Your task to perform on an android device: clear history in the chrome app Image 0: 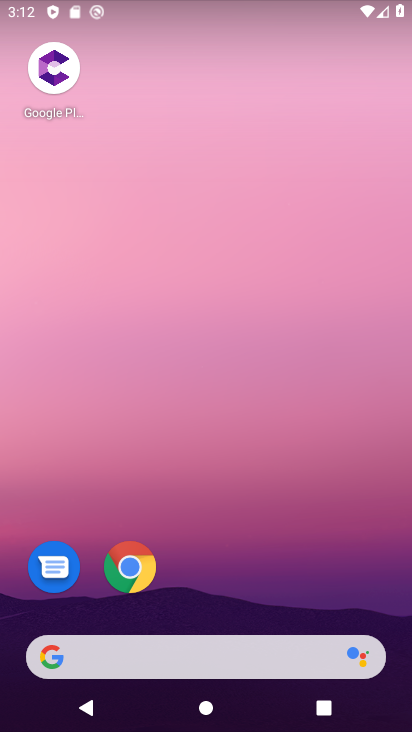
Step 0: drag from (345, 554) to (350, 189)
Your task to perform on an android device: clear history in the chrome app Image 1: 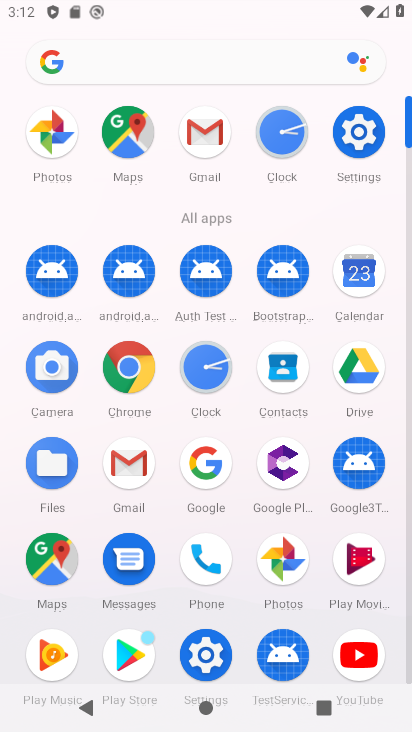
Step 1: click (122, 391)
Your task to perform on an android device: clear history in the chrome app Image 2: 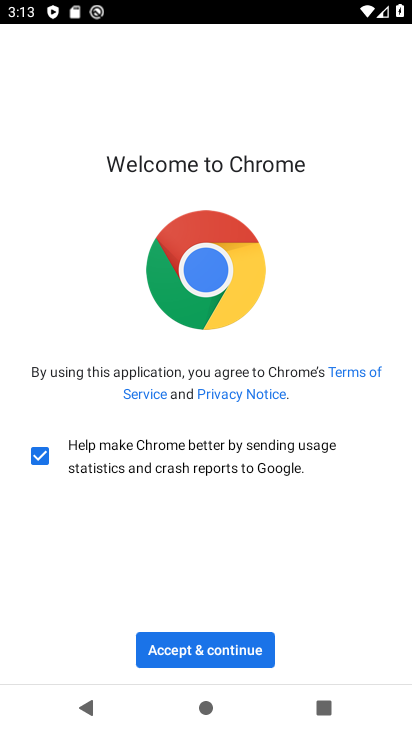
Step 2: click (227, 665)
Your task to perform on an android device: clear history in the chrome app Image 3: 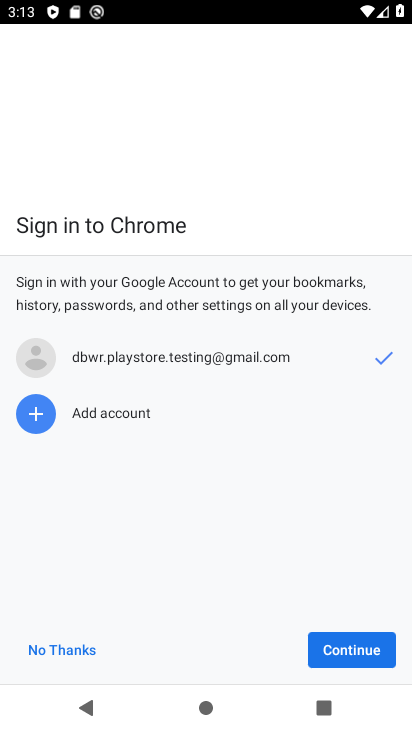
Step 3: click (25, 637)
Your task to perform on an android device: clear history in the chrome app Image 4: 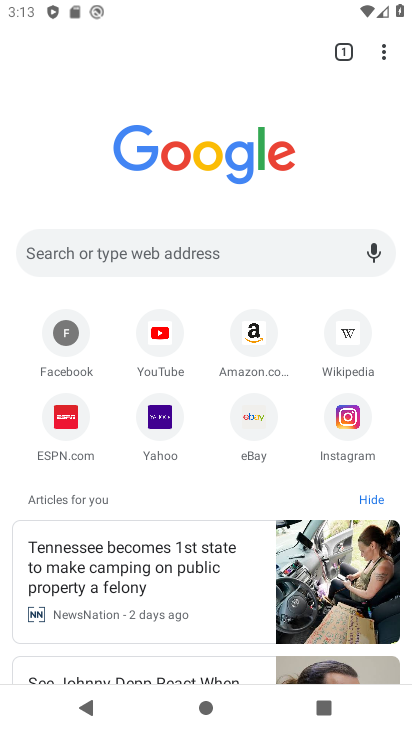
Step 4: task complete